Your task to perform on an android device: Open Google Chrome Image 0: 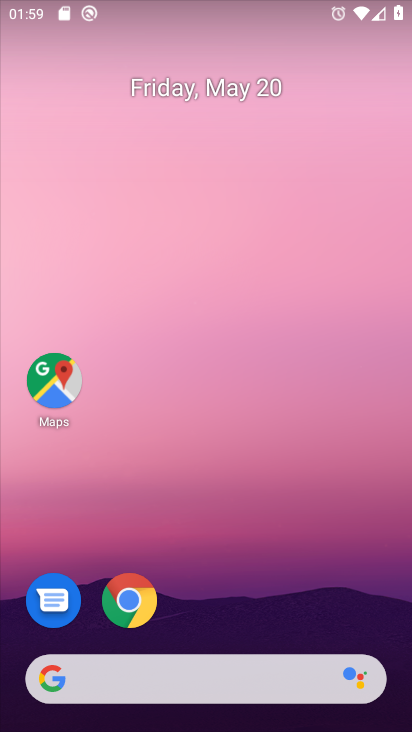
Step 0: click (135, 622)
Your task to perform on an android device: Open Google Chrome Image 1: 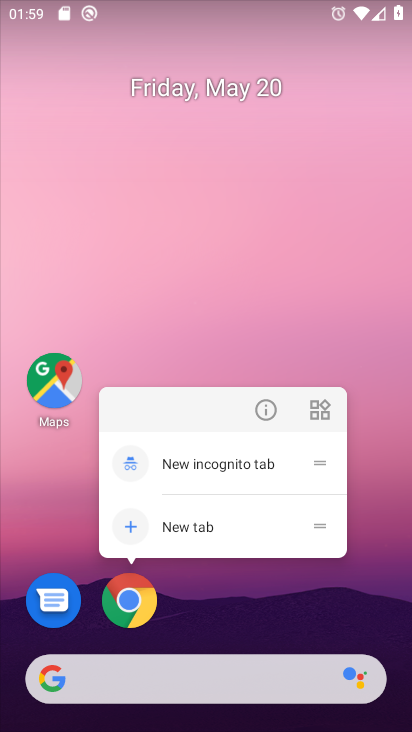
Step 1: click (139, 610)
Your task to perform on an android device: Open Google Chrome Image 2: 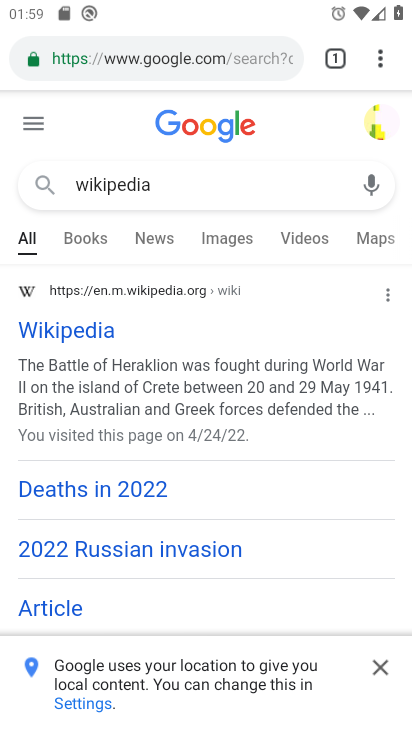
Step 2: click (383, 666)
Your task to perform on an android device: Open Google Chrome Image 3: 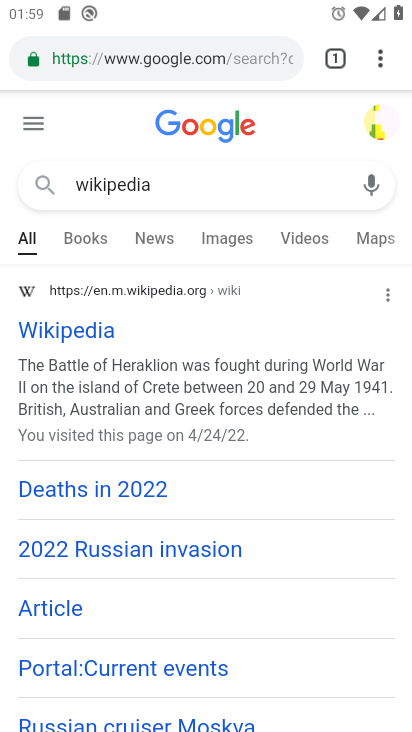
Step 3: task complete